Your task to perform on an android device: turn on wifi Image 0: 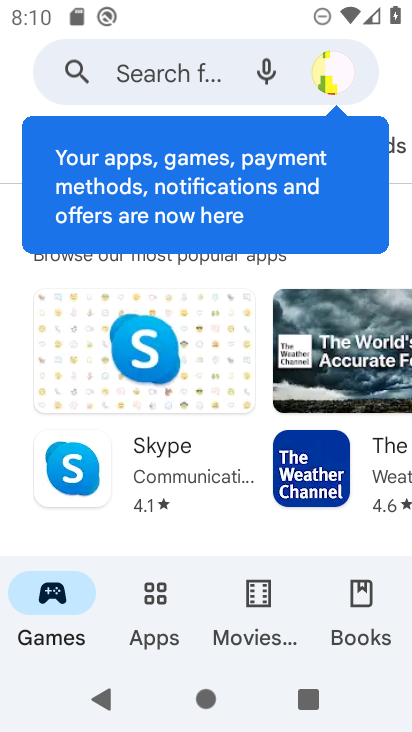
Step 0: press back button
Your task to perform on an android device: turn on wifi Image 1: 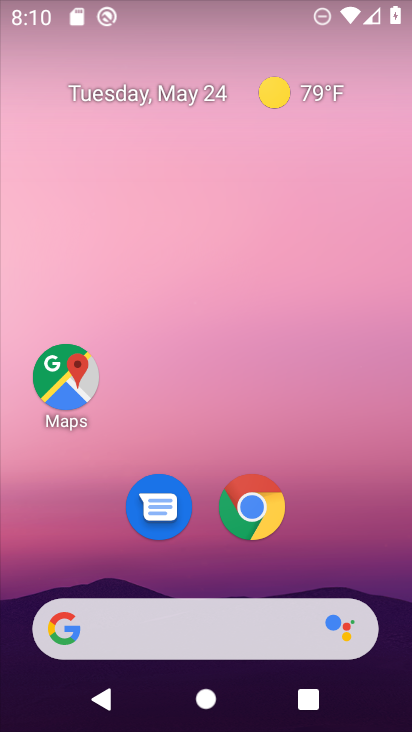
Step 1: drag from (292, 533) to (290, 0)
Your task to perform on an android device: turn on wifi Image 2: 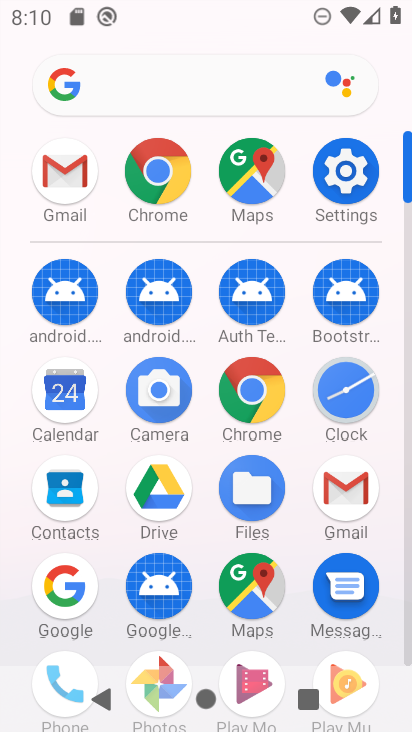
Step 2: click (343, 168)
Your task to perform on an android device: turn on wifi Image 3: 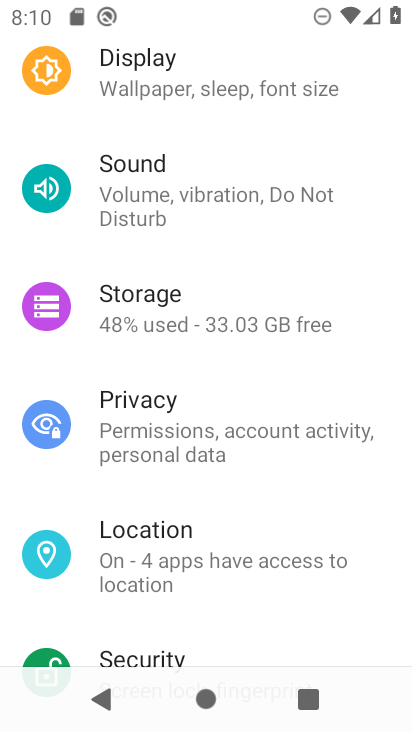
Step 3: drag from (233, 87) to (232, 515)
Your task to perform on an android device: turn on wifi Image 4: 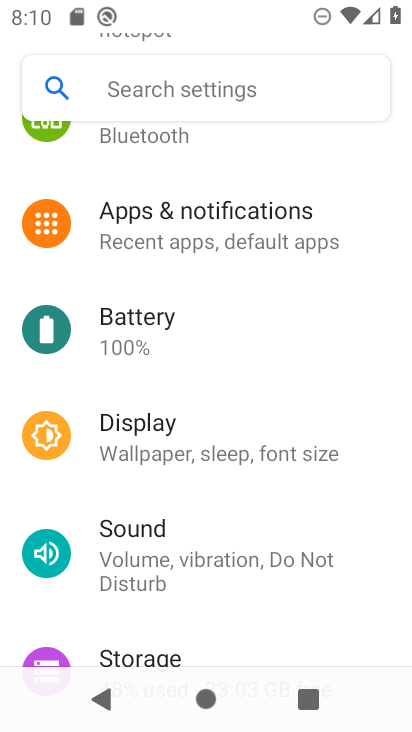
Step 4: drag from (246, 237) to (281, 599)
Your task to perform on an android device: turn on wifi Image 5: 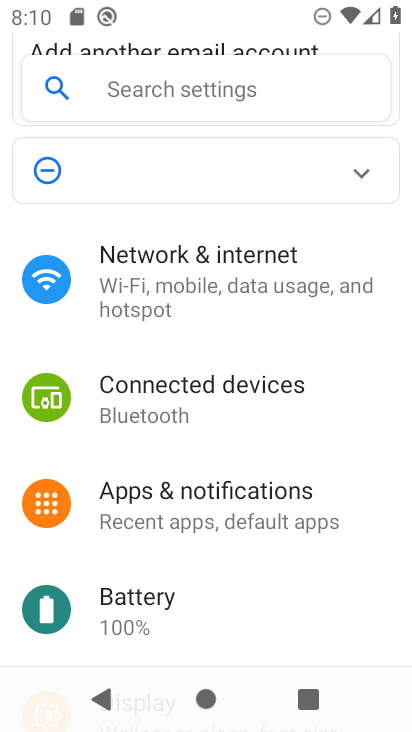
Step 5: click (223, 264)
Your task to perform on an android device: turn on wifi Image 6: 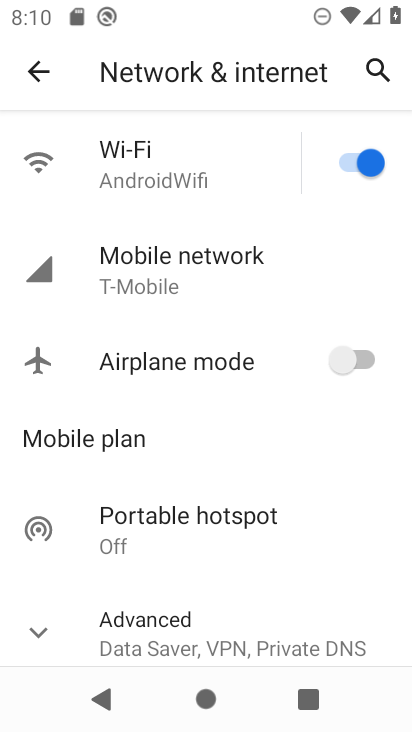
Step 6: task complete